Your task to perform on an android device: What is the news today? Image 0: 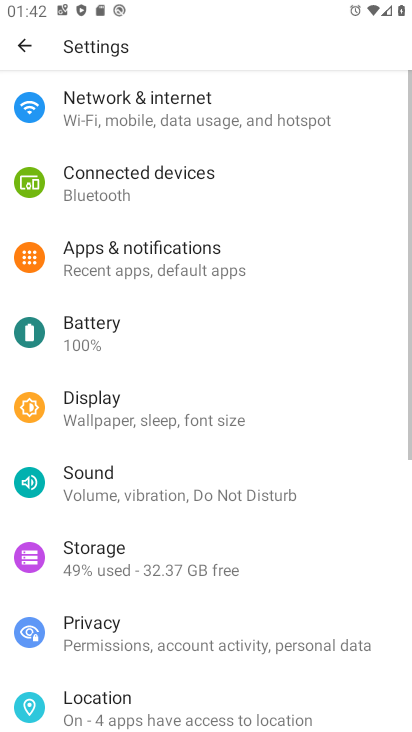
Step 0: press home button
Your task to perform on an android device: What is the news today? Image 1: 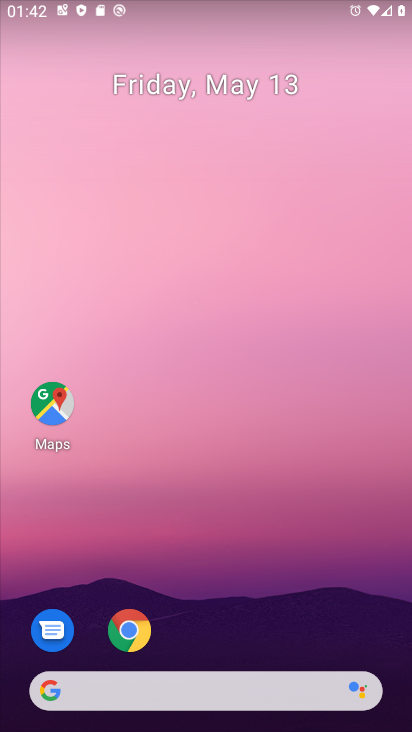
Step 1: drag from (305, 725) to (209, 230)
Your task to perform on an android device: What is the news today? Image 2: 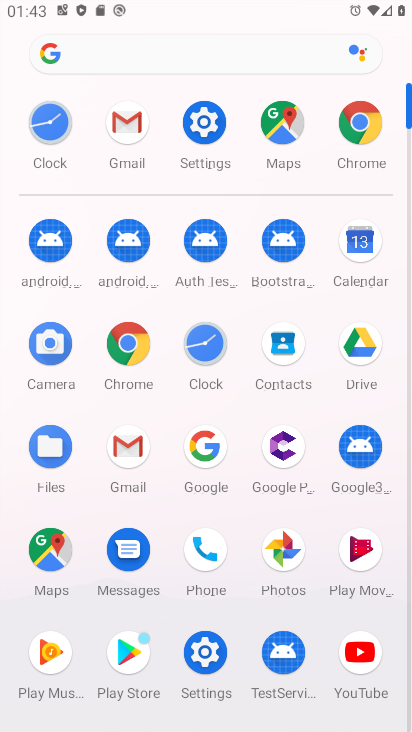
Step 2: click (140, 57)
Your task to perform on an android device: What is the news today? Image 3: 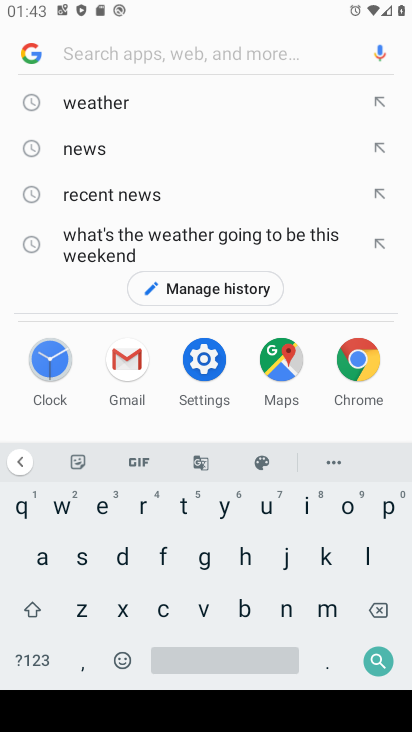
Step 3: click (134, 144)
Your task to perform on an android device: What is the news today? Image 4: 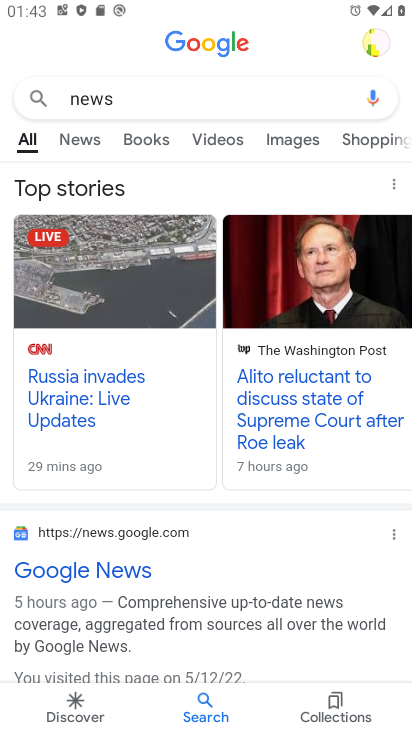
Step 4: task complete